Your task to perform on an android device: Open Youtube and go to the subscriptions tab Image 0: 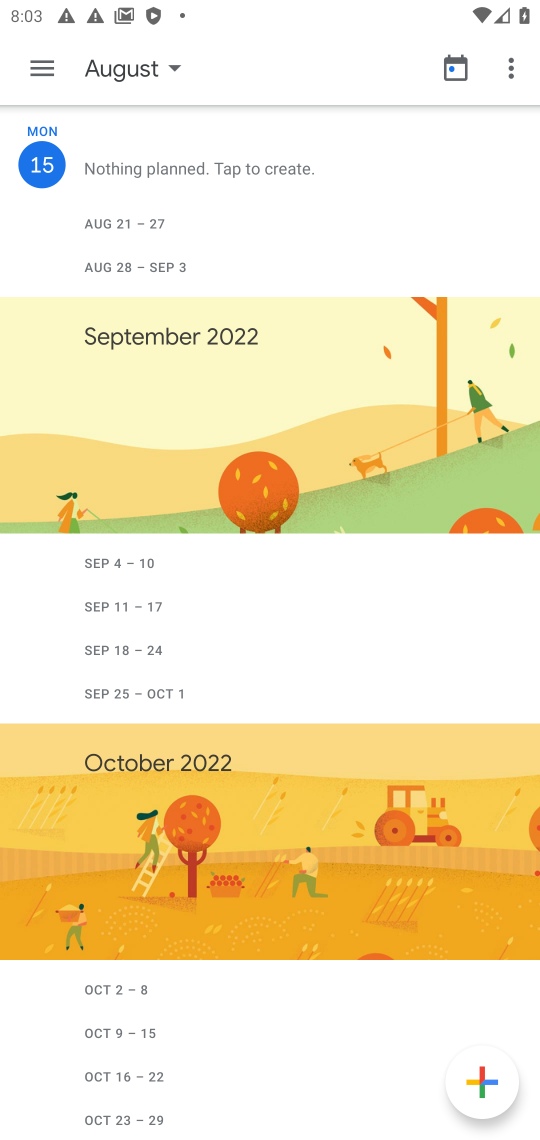
Step 0: press home button
Your task to perform on an android device: Open Youtube and go to the subscriptions tab Image 1: 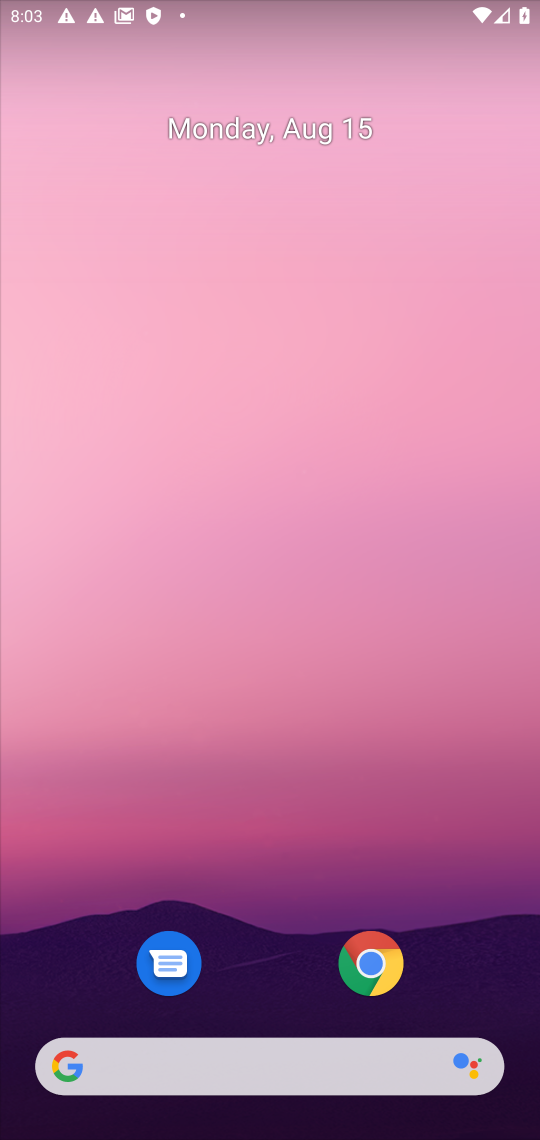
Step 1: drag from (295, 978) to (381, 70)
Your task to perform on an android device: Open Youtube and go to the subscriptions tab Image 2: 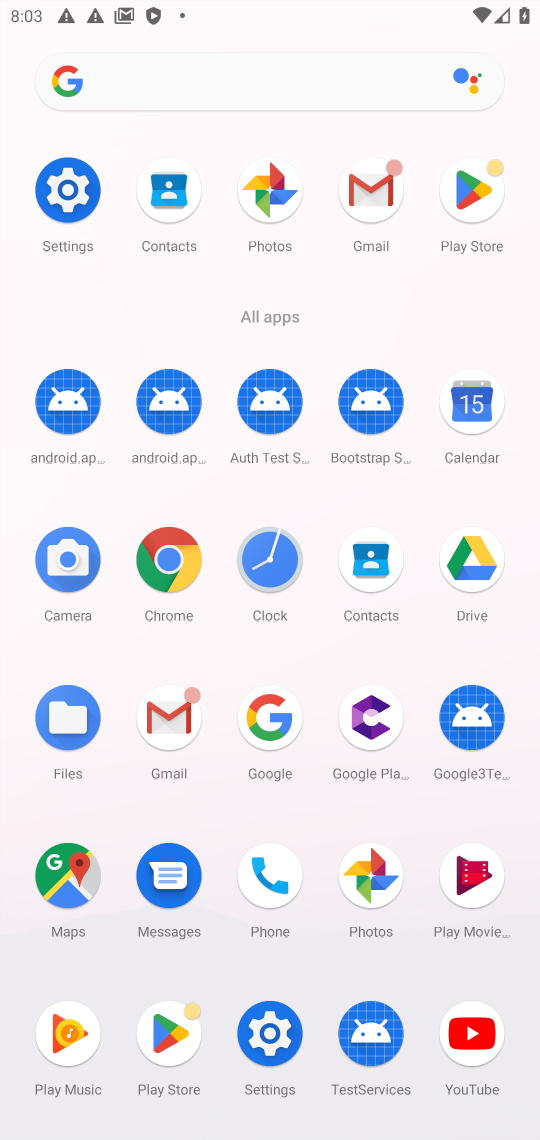
Step 2: click (485, 1049)
Your task to perform on an android device: Open Youtube and go to the subscriptions tab Image 3: 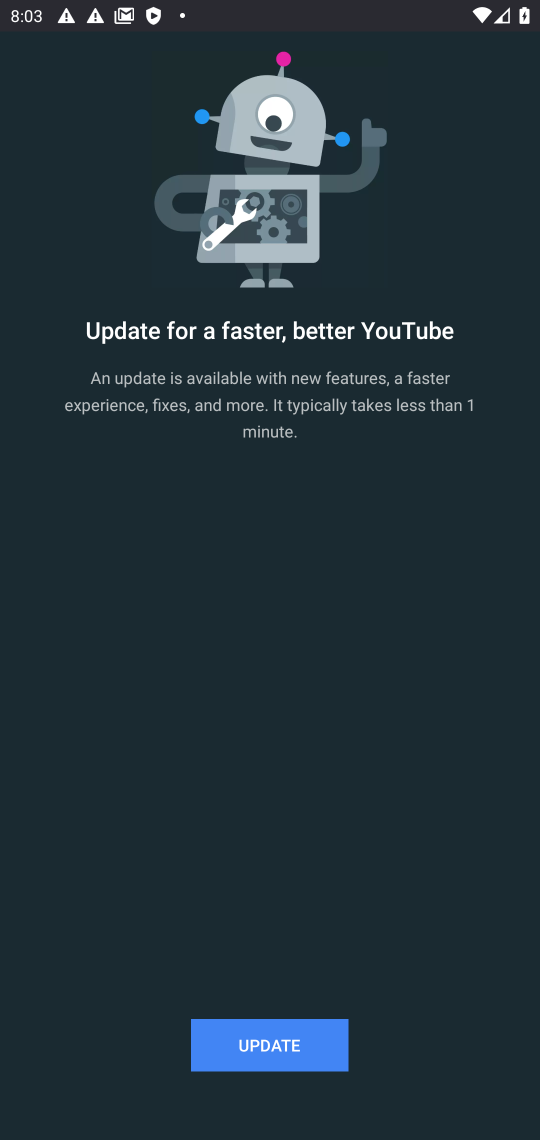
Step 3: click (316, 1059)
Your task to perform on an android device: Open Youtube and go to the subscriptions tab Image 4: 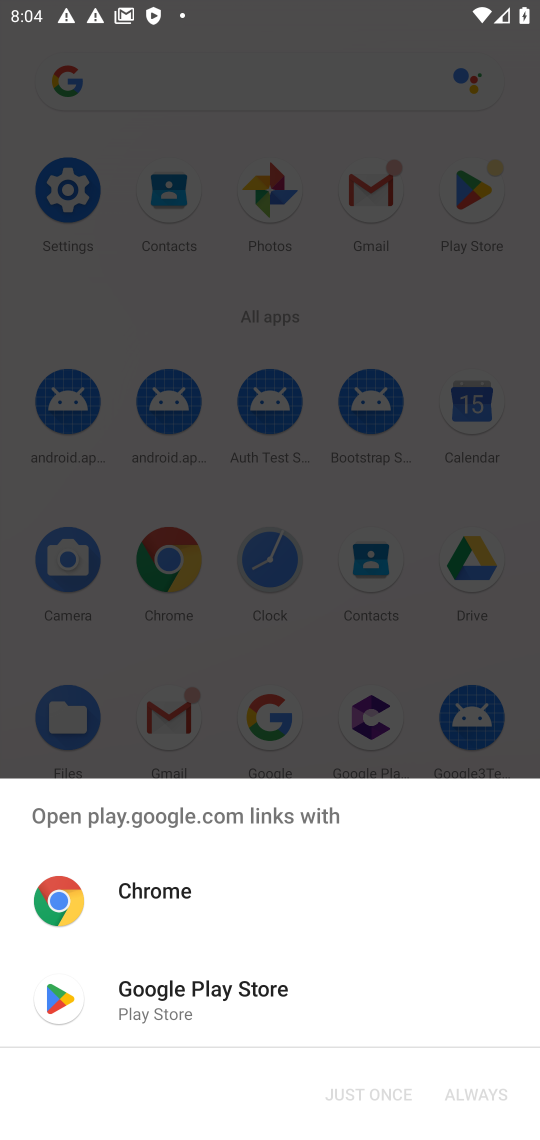
Step 4: click (233, 1009)
Your task to perform on an android device: Open Youtube and go to the subscriptions tab Image 5: 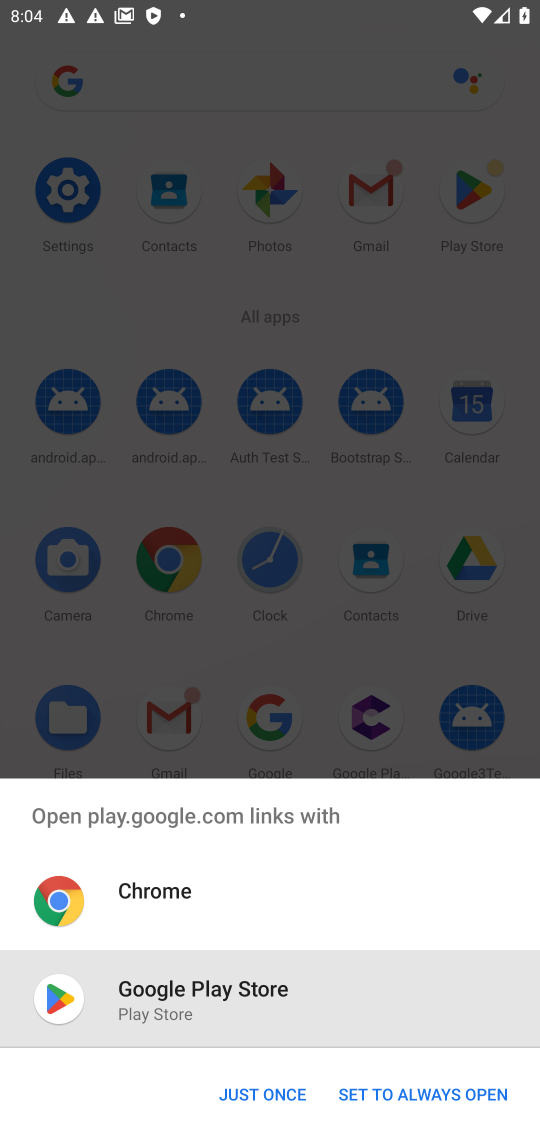
Step 5: click (273, 1081)
Your task to perform on an android device: Open Youtube and go to the subscriptions tab Image 6: 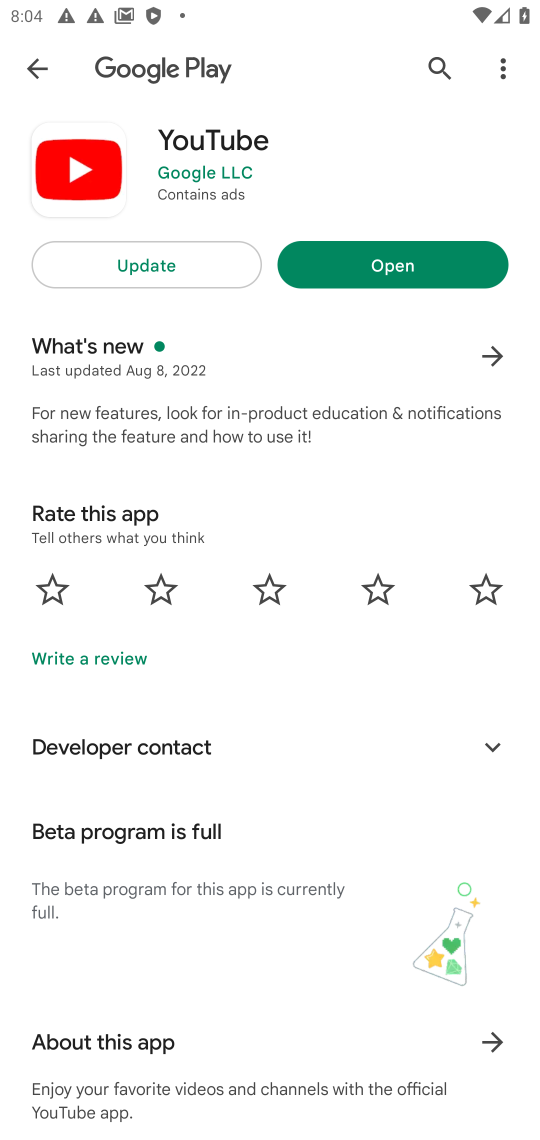
Step 6: click (109, 264)
Your task to perform on an android device: Open Youtube and go to the subscriptions tab Image 7: 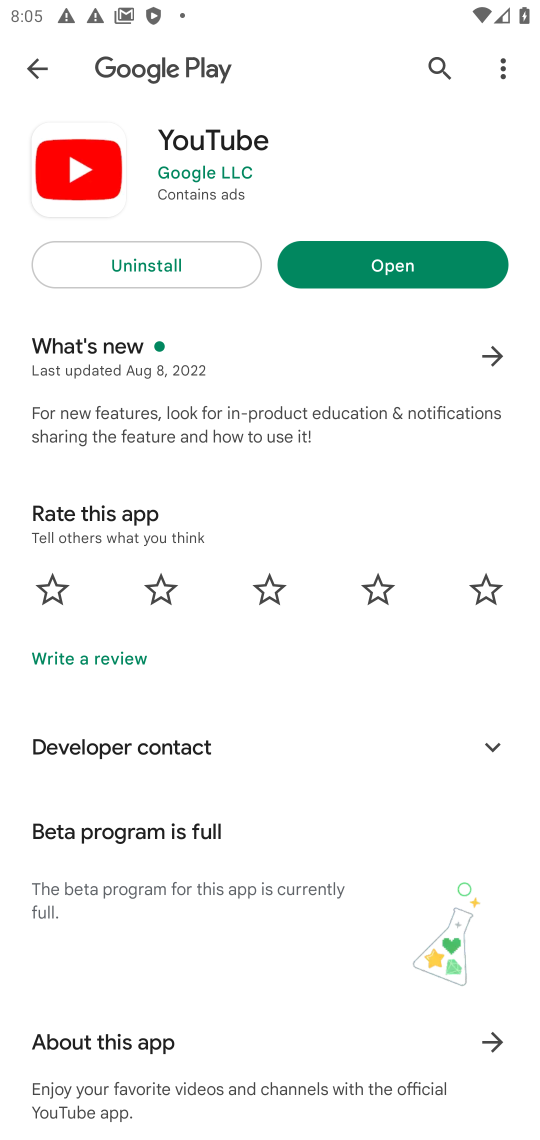
Step 7: click (362, 269)
Your task to perform on an android device: Open Youtube and go to the subscriptions tab Image 8: 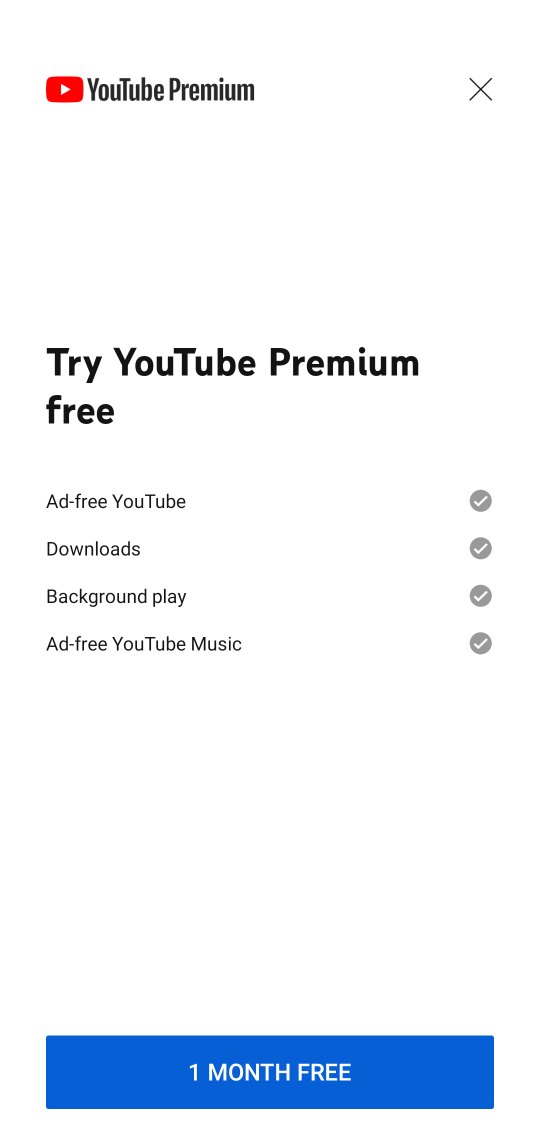
Step 8: click (467, 98)
Your task to perform on an android device: Open Youtube and go to the subscriptions tab Image 9: 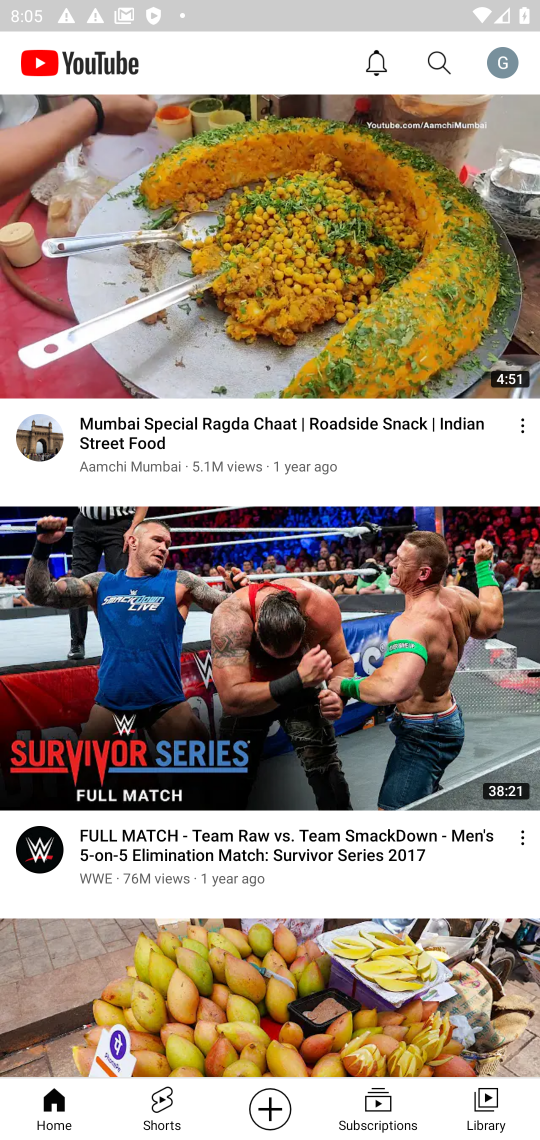
Step 9: click (404, 1122)
Your task to perform on an android device: Open Youtube and go to the subscriptions tab Image 10: 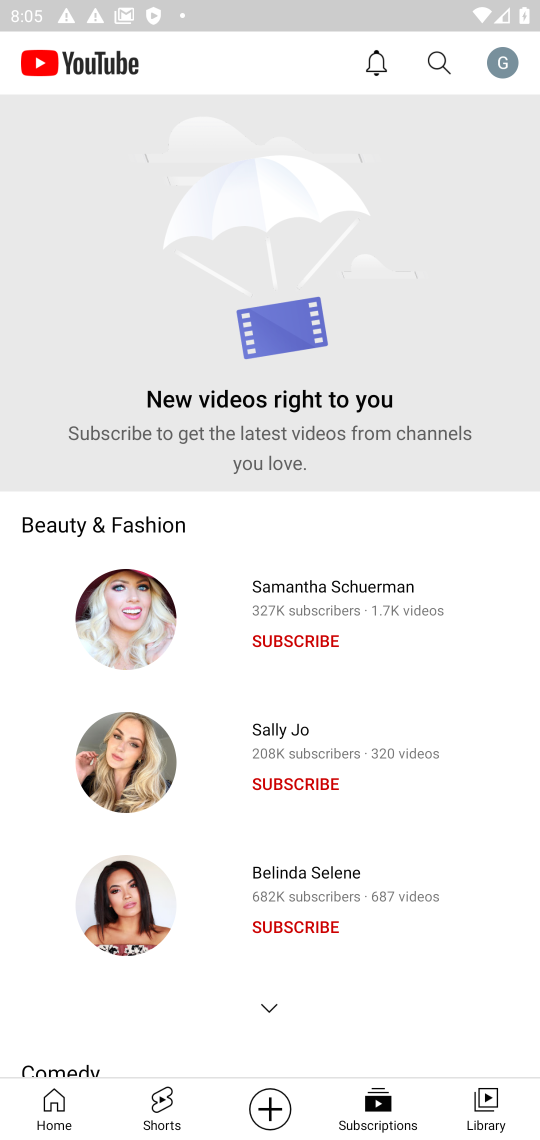
Step 10: task complete